Your task to perform on an android device: toggle show notifications on the lock screen Image 0: 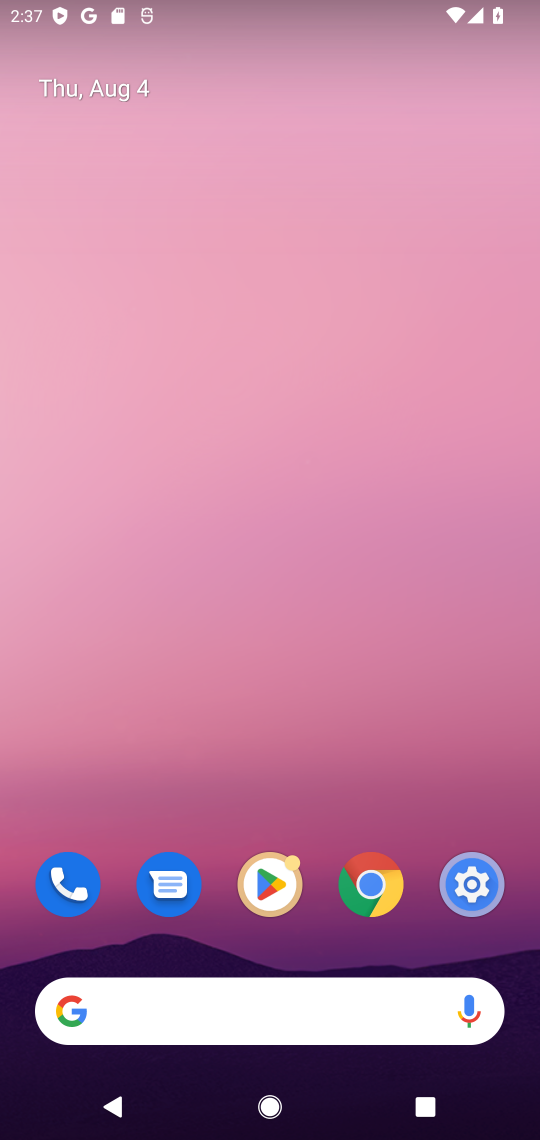
Step 0: drag from (267, 804) to (365, 177)
Your task to perform on an android device: toggle show notifications on the lock screen Image 1: 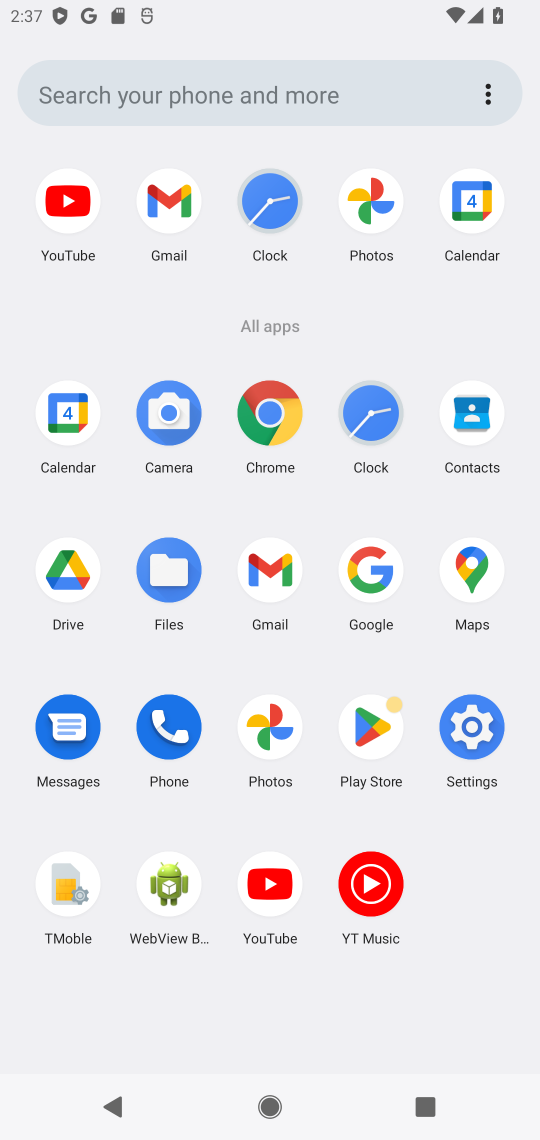
Step 1: click (457, 715)
Your task to perform on an android device: toggle show notifications on the lock screen Image 2: 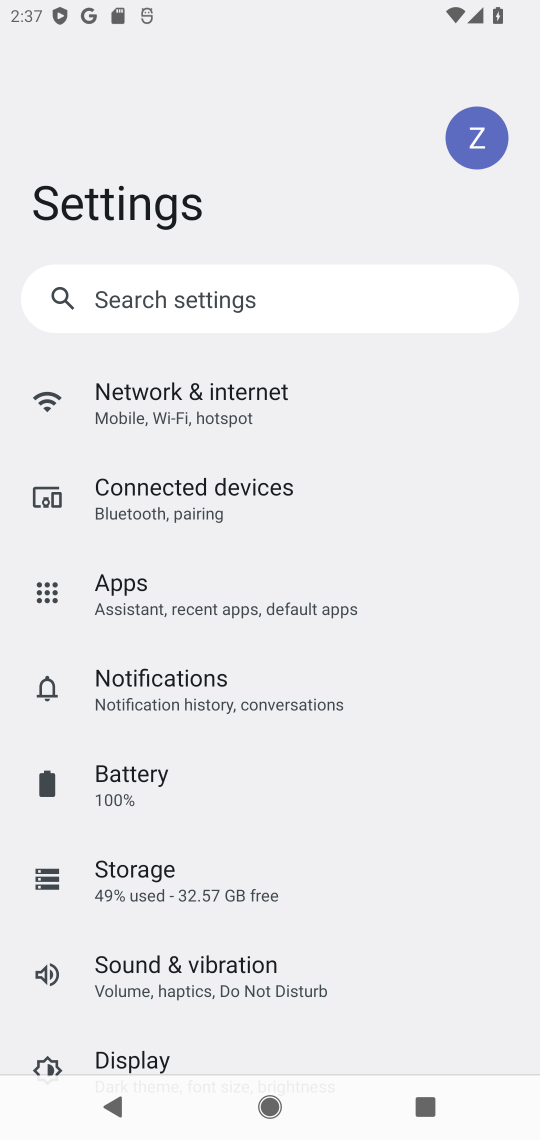
Step 2: drag from (264, 907) to (320, 218)
Your task to perform on an android device: toggle show notifications on the lock screen Image 3: 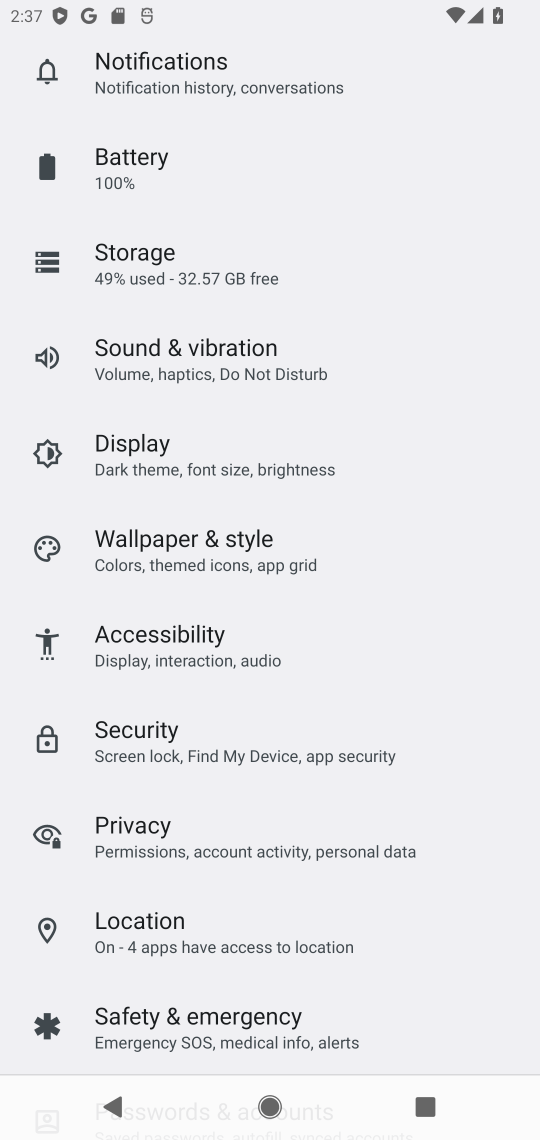
Step 3: drag from (204, 203) to (206, 991)
Your task to perform on an android device: toggle show notifications on the lock screen Image 4: 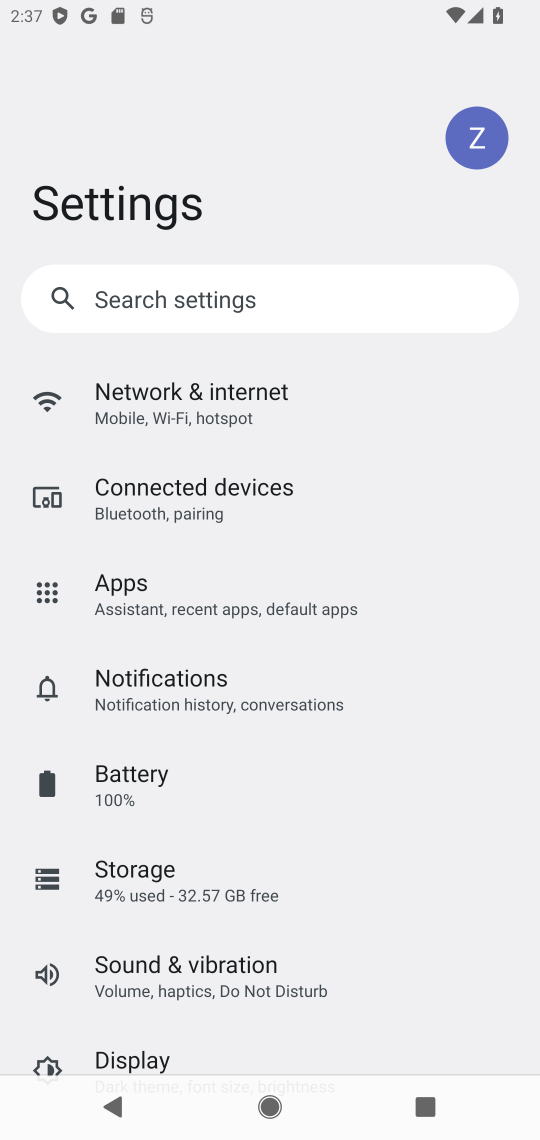
Step 4: click (171, 704)
Your task to perform on an android device: toggle show notifications on the lock screen Image 5: 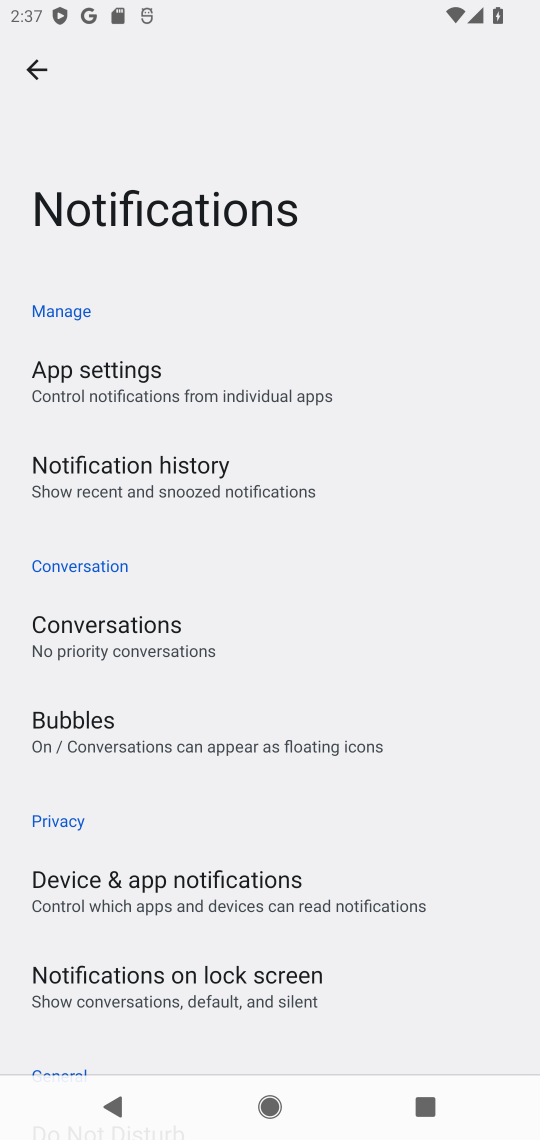
Step 5: click (198, 970)
Your task to perform on an android device: toggle show notifications on the lock screen Image 6: 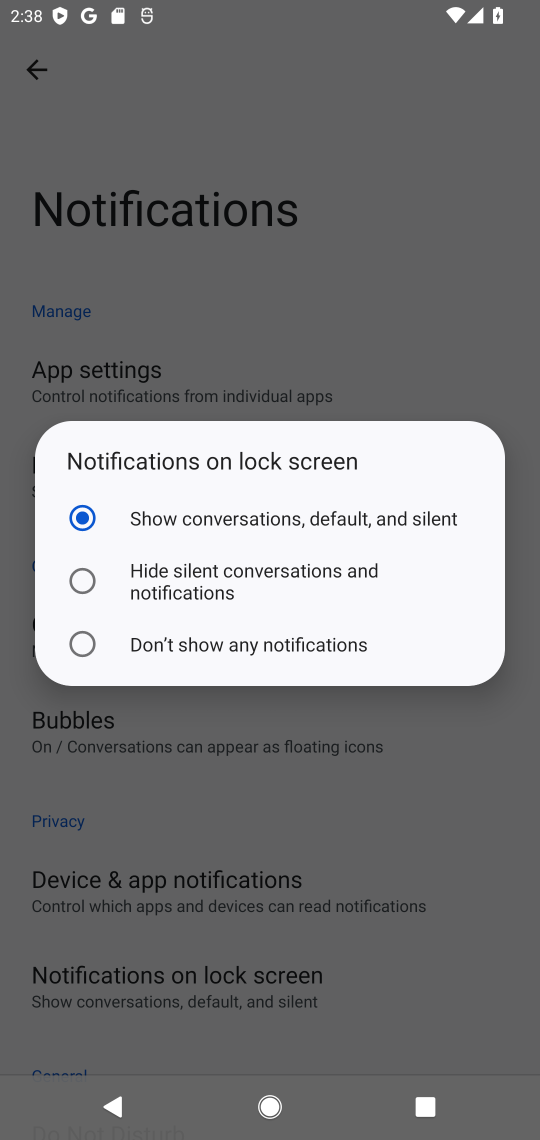
Step 6: task complete